Your task to perform on an android device: open app "AliExpress" Image 0: 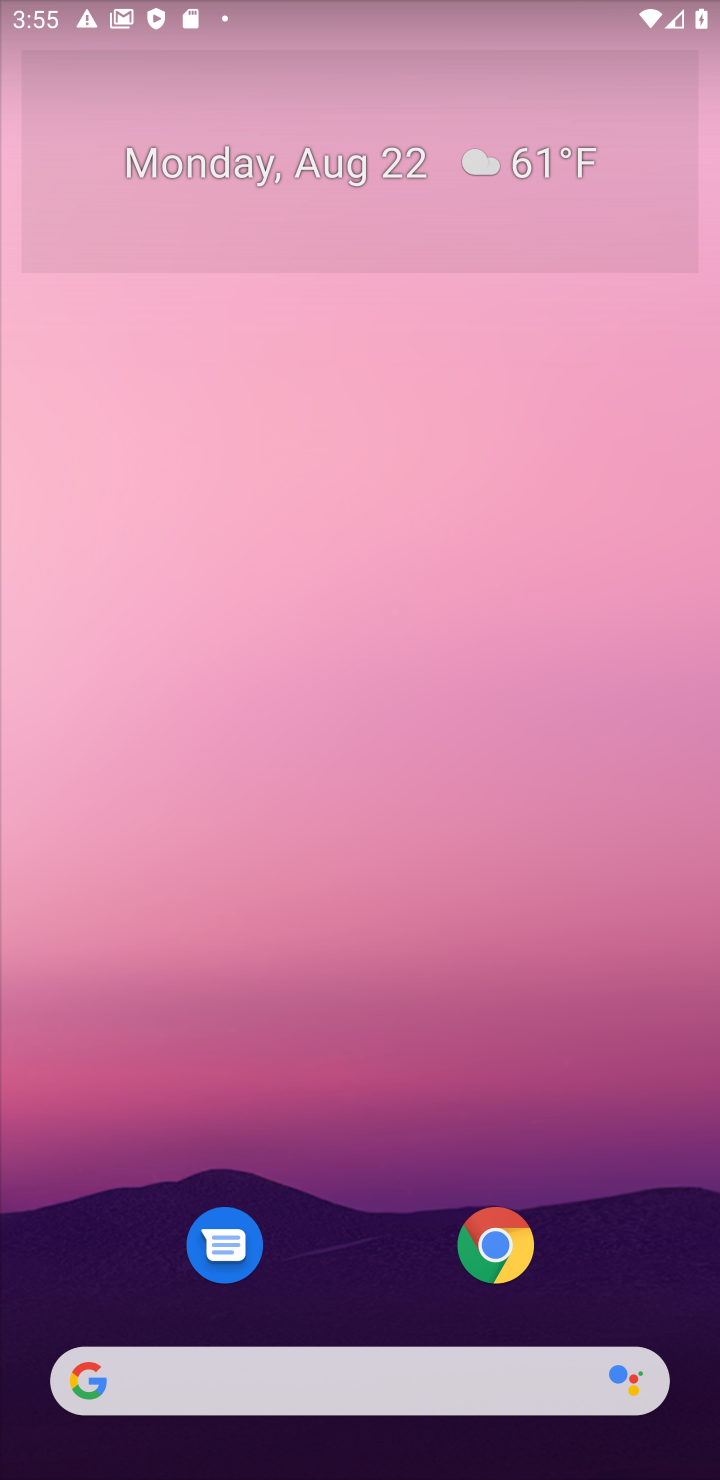
Step 0: press home button
Your task to perform on an android device: open app "AliExpress" Image 1: 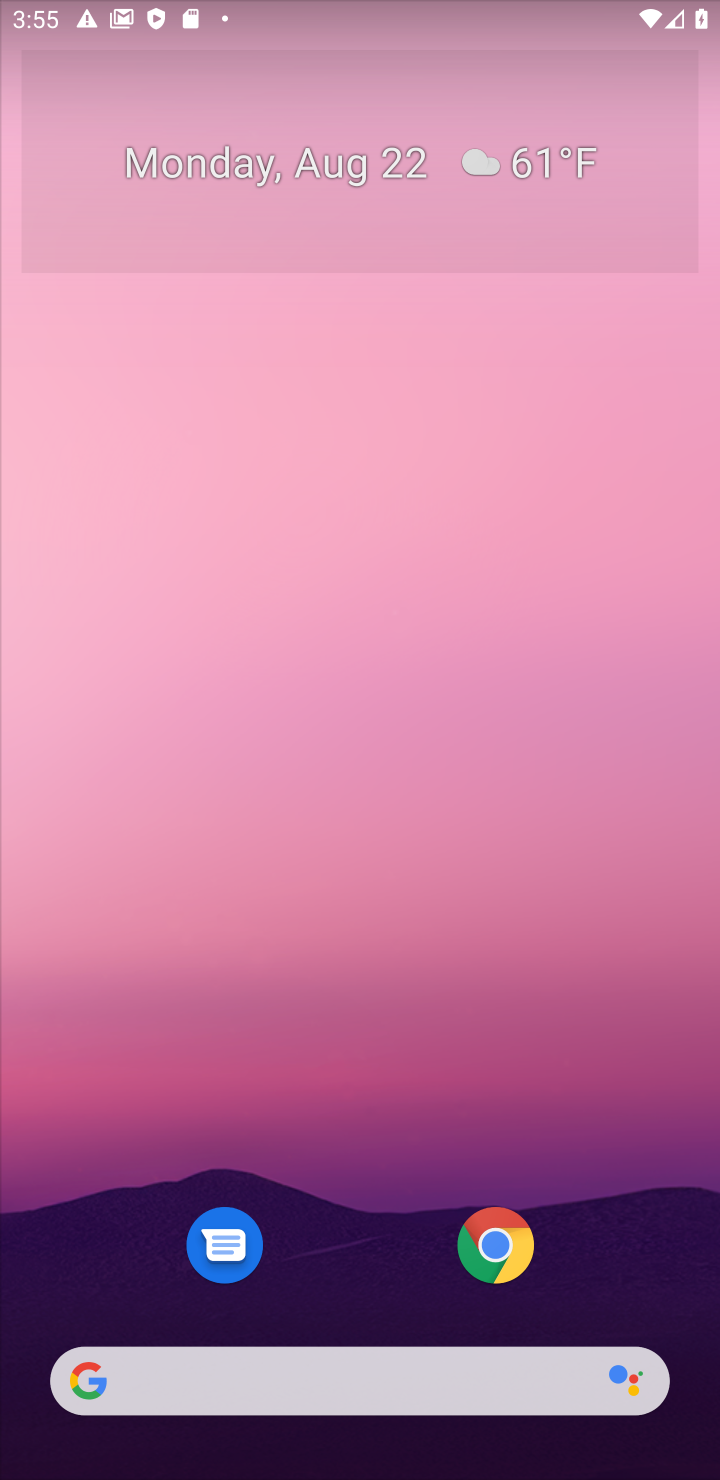
Step 1: drag from (615, 1281) to (714, 68)
Your task to perform on an android device: open app "AliExpress" Image 2: 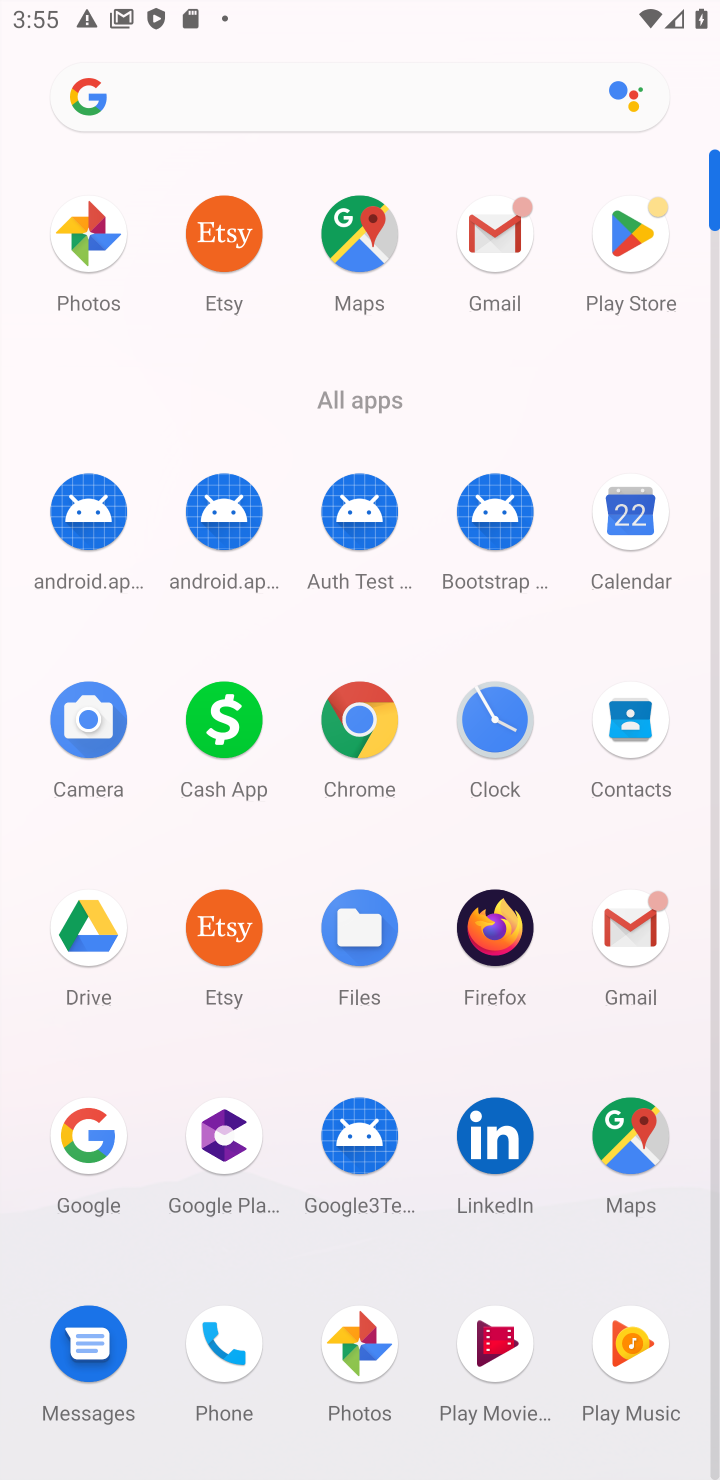
Step 2: click (637, 227)
Your task to perform on an android device: open app "AliExpress" Image 3: 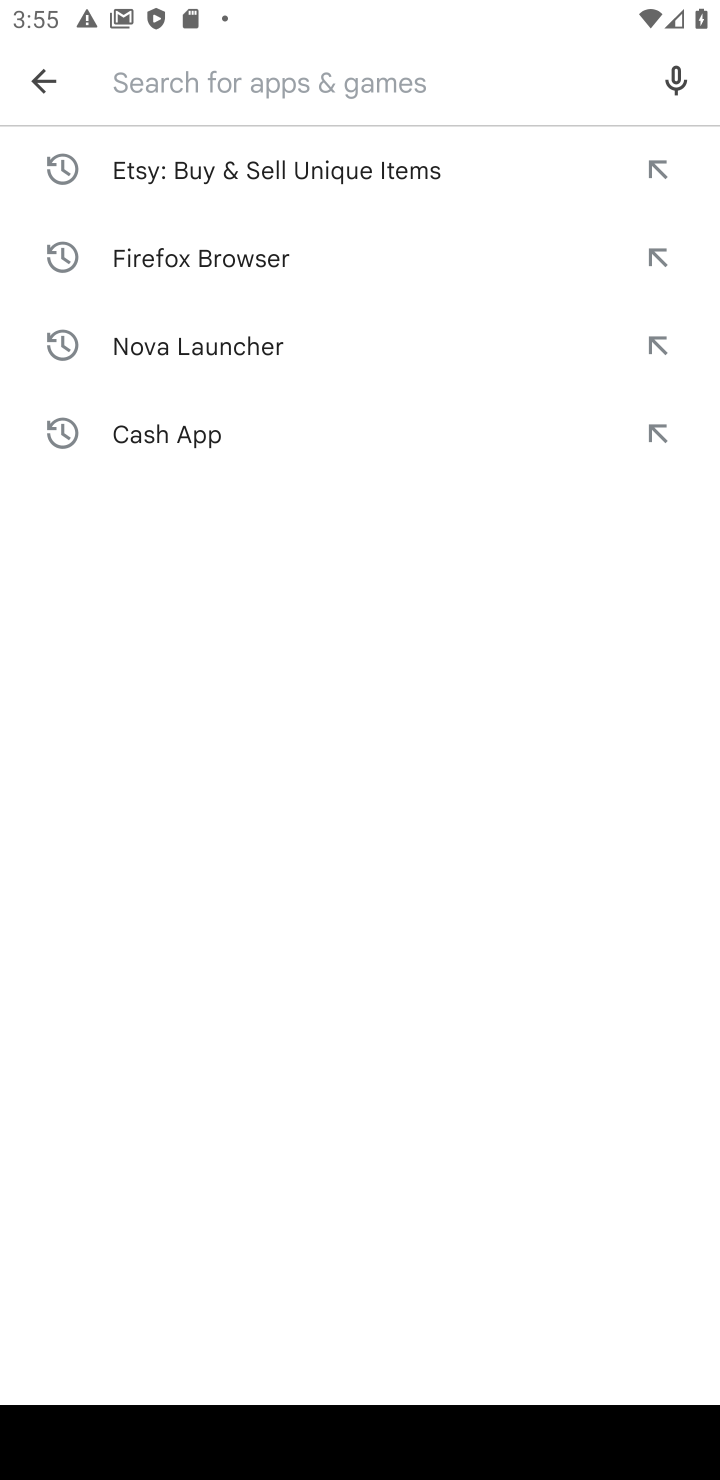
Step 3: type "aliexpress"
Your task to perform on an android device: open app "AliExpress" Image 4: 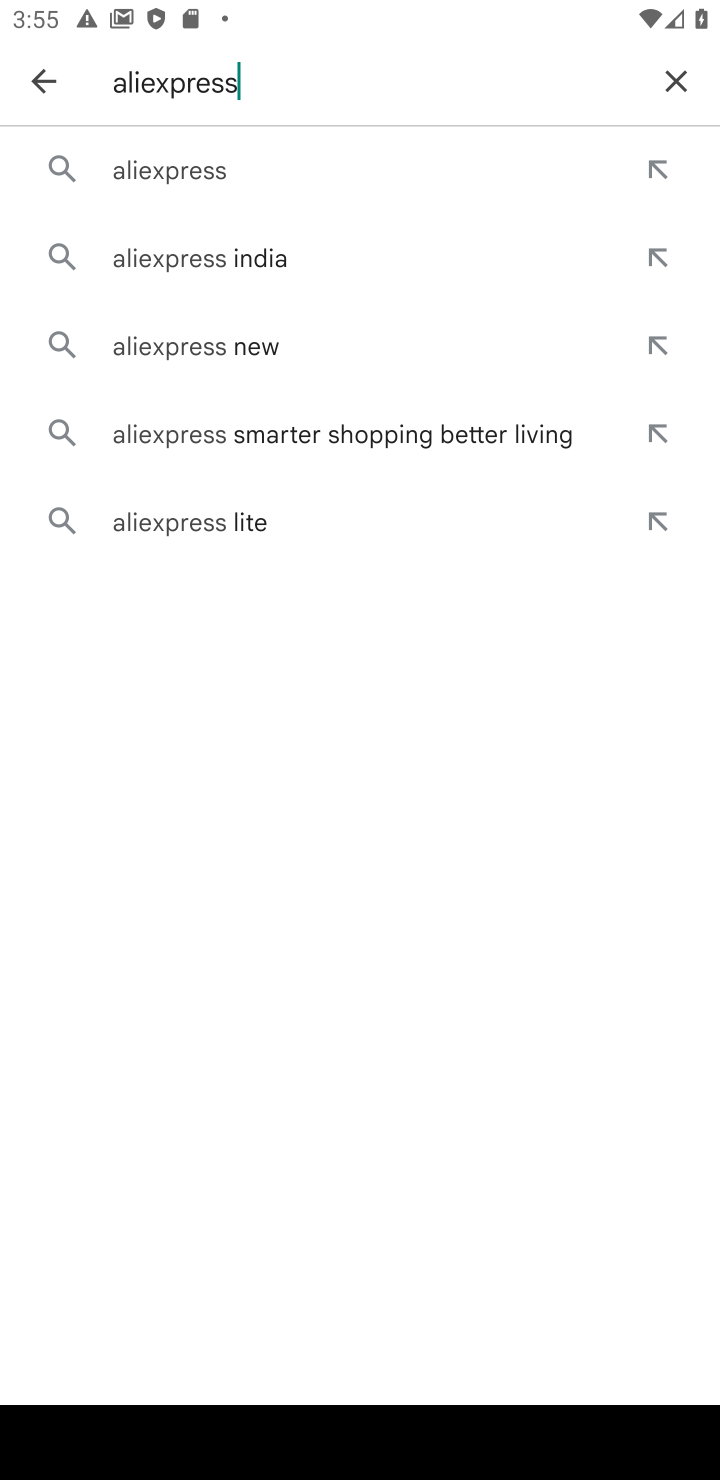
Step 4: click (231, 166)
Your task to perform on an android device: open app "AliExpress" Image 5: 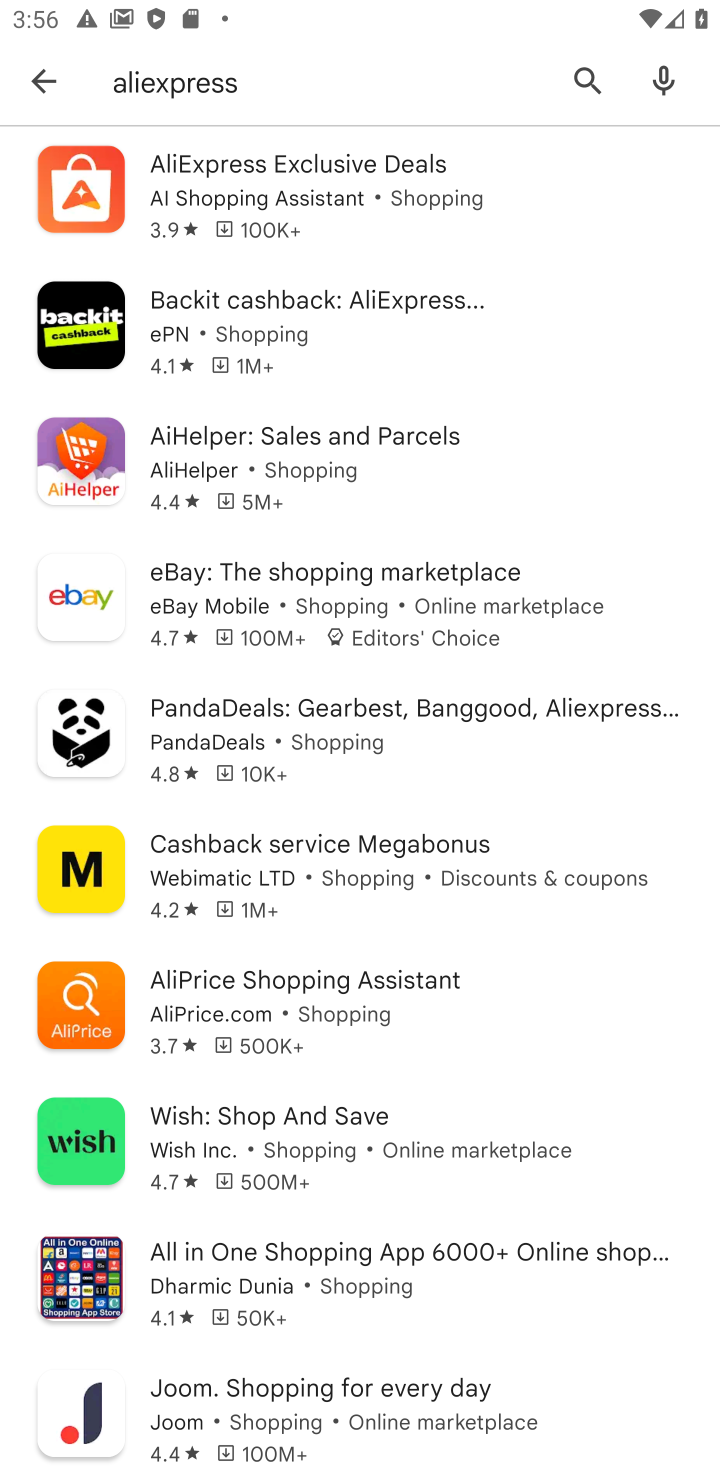
Step 5: task complete